Your task to perform on an android device: remove spam from my inbox in the gmail app Image 0: 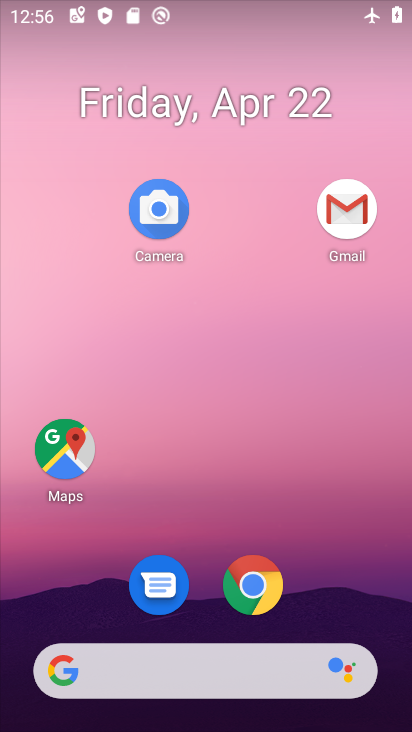
Step 0: click (353, 202)
Your task to perform on an android device: remove spam from my inbox in the gmail app Image 1: 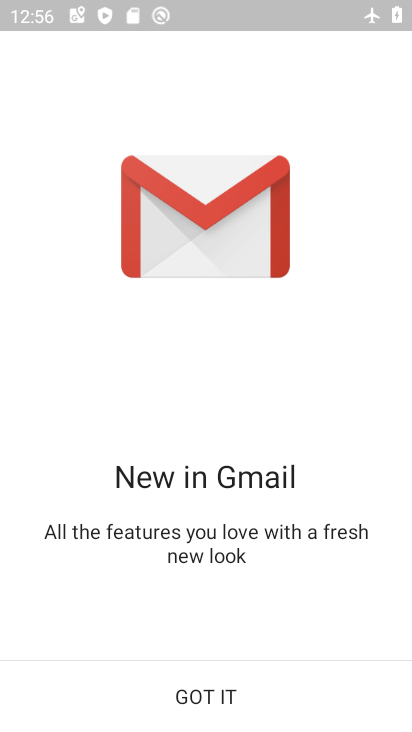
Step 1: click (262, 687)
Your task to perform on an android device: remove spam from my inbox in the gmail app Image 2: 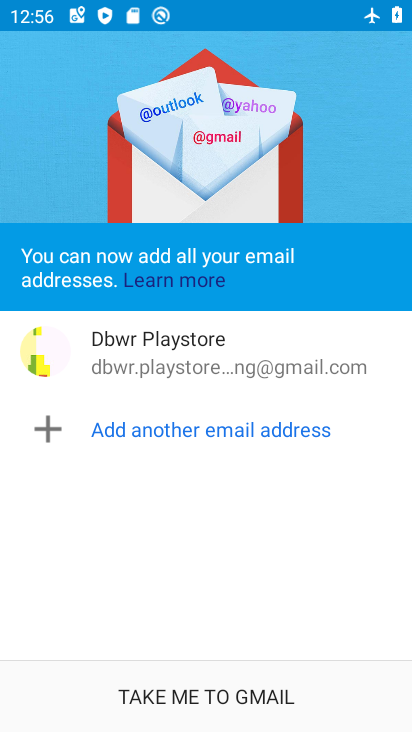
Step 2: click (262, 687)
Your task to perform on an android device: remove spam from my inbox in the gmail app Image 3: 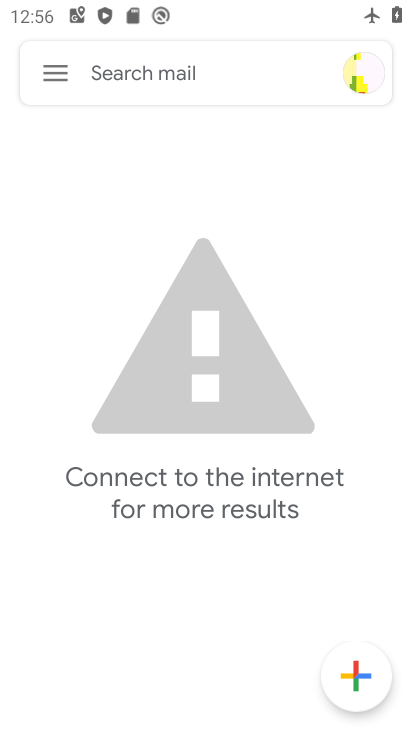
Step 3: task complete